Your task to perform on an android device: Check the weather Image 0: 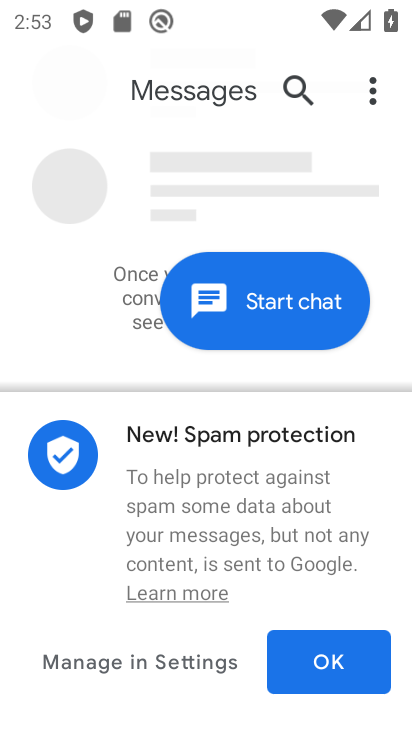
Step 0: press home button
Your task to perform on an android device: Check the weather Image 1: 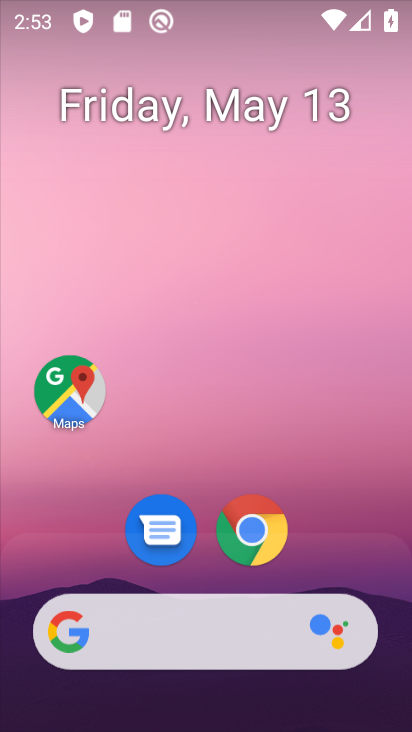
Step 1: drag from (329, 555) to (362, 79)
Your task to perform on an android device: Check the weather Image 2: 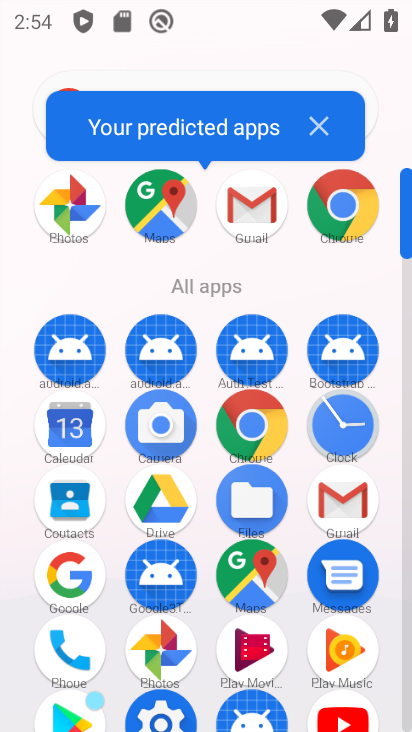
Step 2: click (254, 431)
Your task to perform on an android device: Check the weather Image 3: 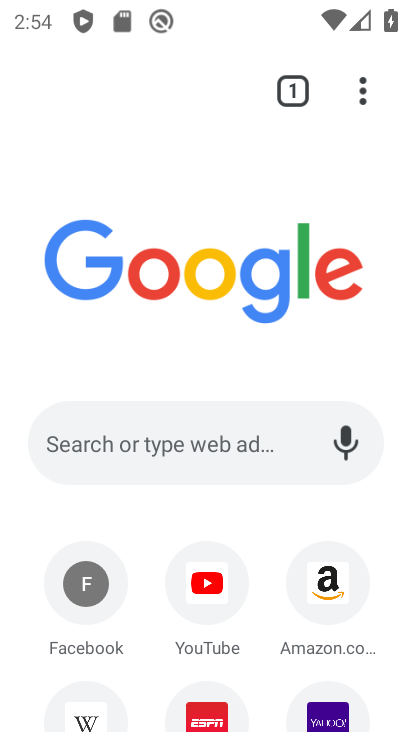
Step 3: click (190, 444)
Your task to perform on an android device: Check the weather Image 4: 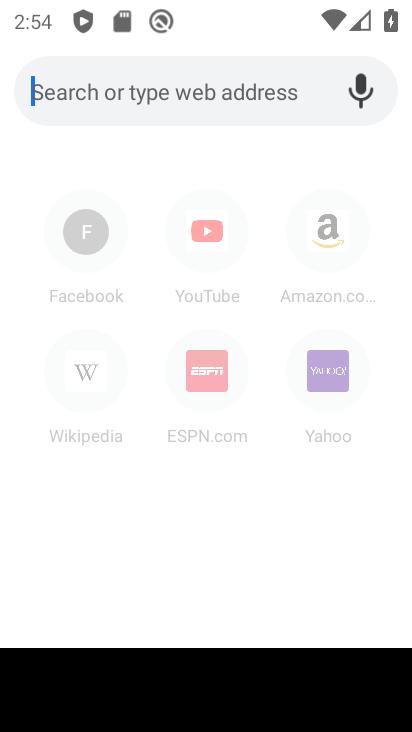
Step 4: type "weather"
Your task to perform on an android device: Check the weather Image 5: 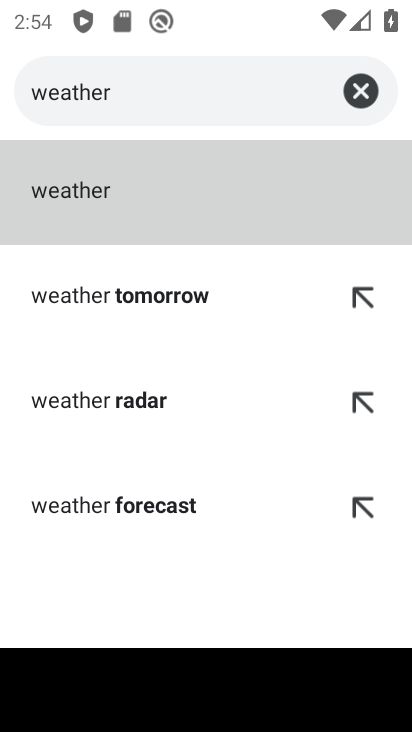
Step 5: click (106, 224)
Your task to perform on an android device: Check the weather Image 6: 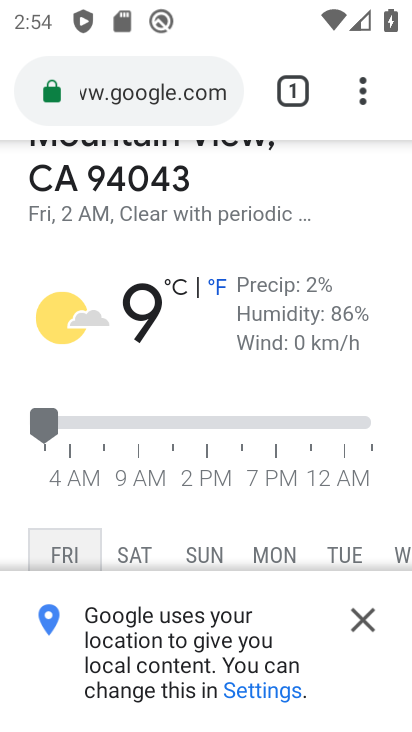
Step 6: task complete